Your task to perform on an android device: toggle priority inbox in the gmail app Image 0: 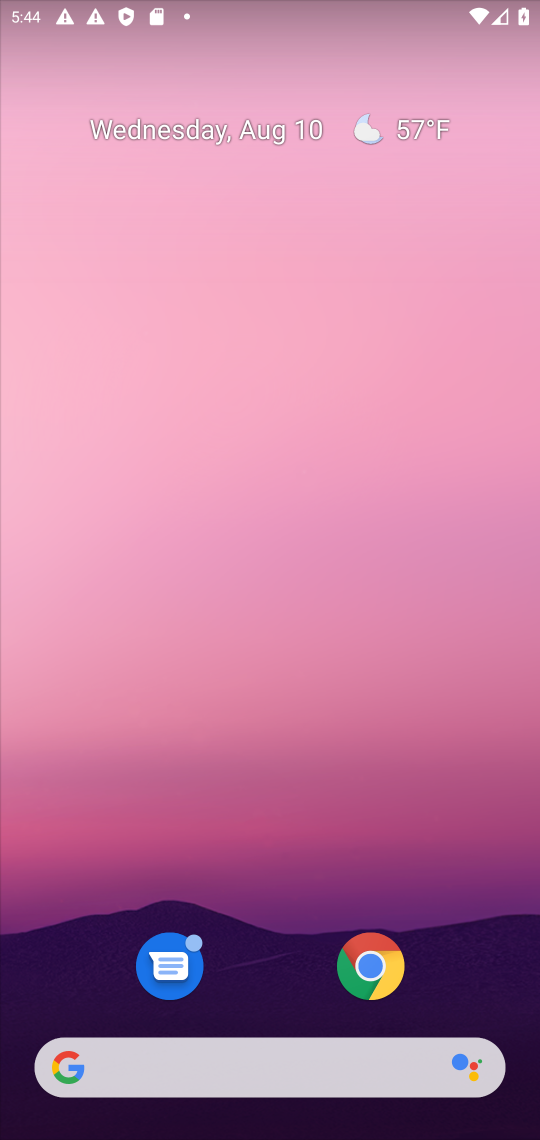
Step 0: click (370, 242)
Your task to perform on an android device: toggle priority inbox in the gmail app Image 1: 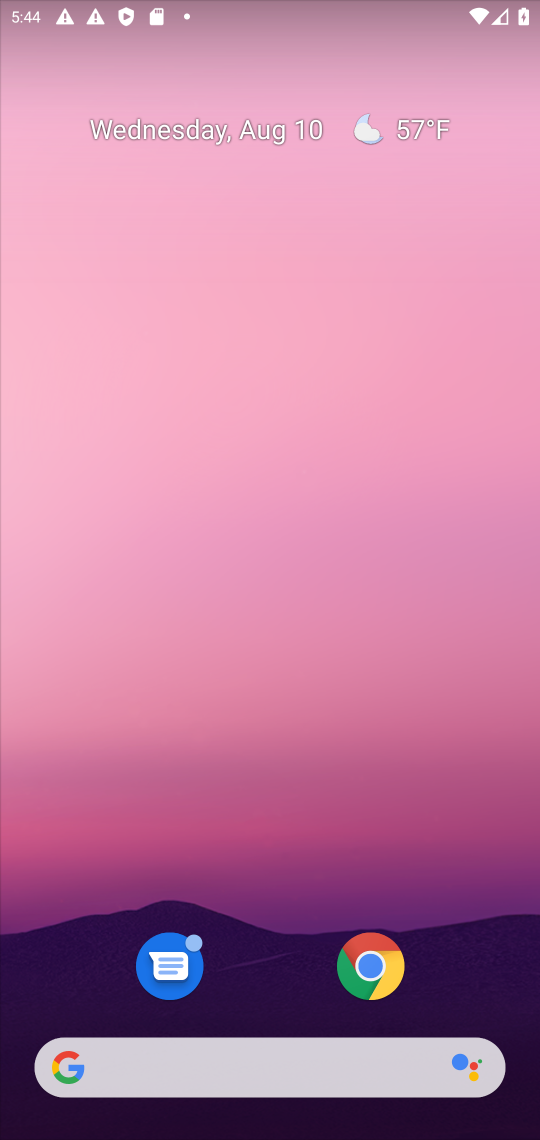
Step 1: drag from (258, 974) to (305, 333)
Your task to perform on an android device: toggle priority inbox in the gmail app Image 2: 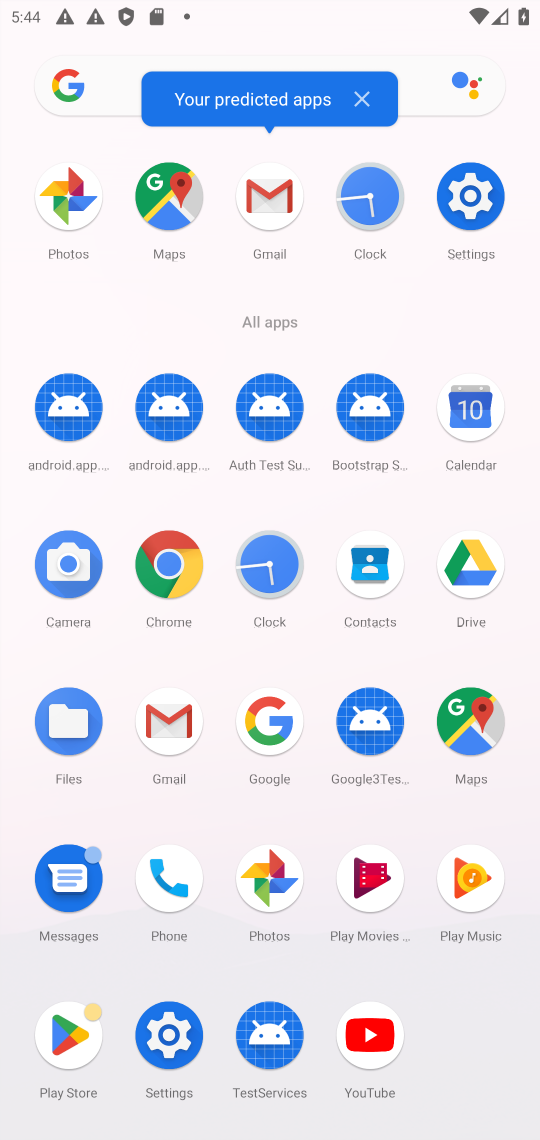
Step 2: click (283, 211)
Your task to perform on an android device: toggle priority inbox in the gmail app Image 3: 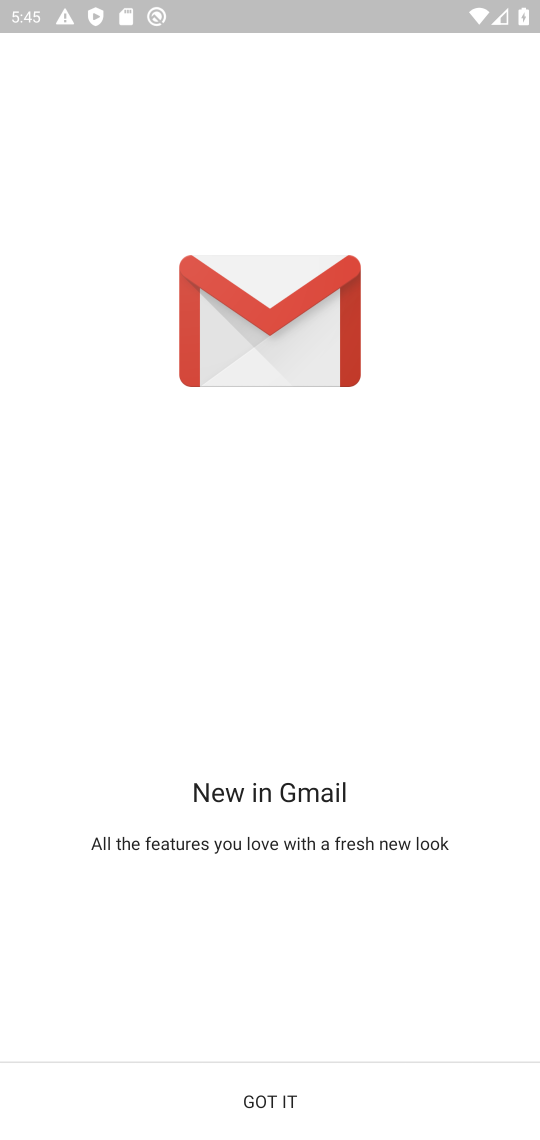
Step 3: click (276, 1094)
Your task to perform on an android device: toggle priority inbox in the gmail app Image 4: 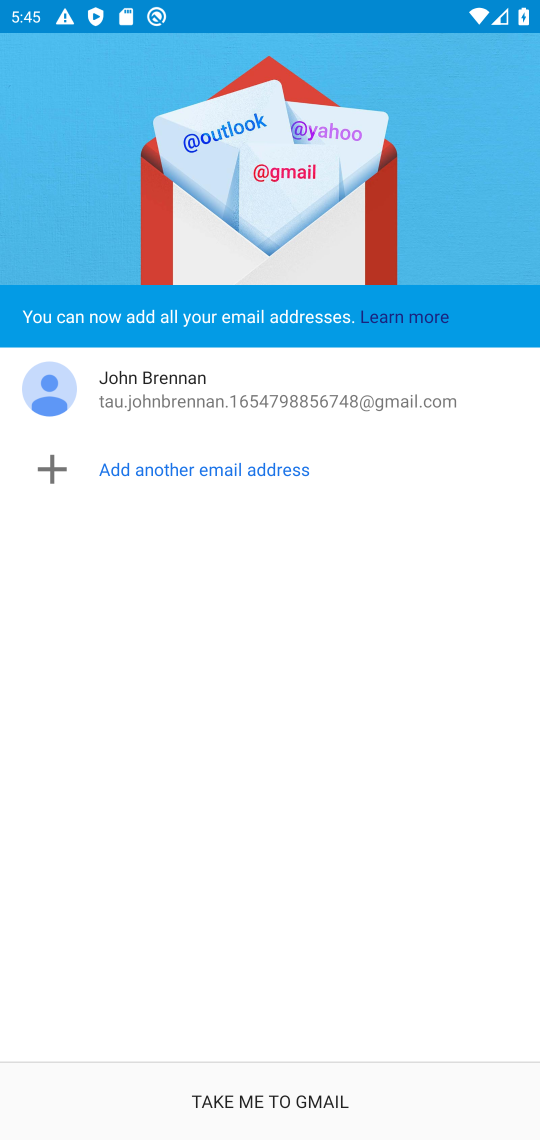
Step 4: click (276, 1094)
Your task to perform on an android device: toggle priority inbox in the gmail app Image 5: 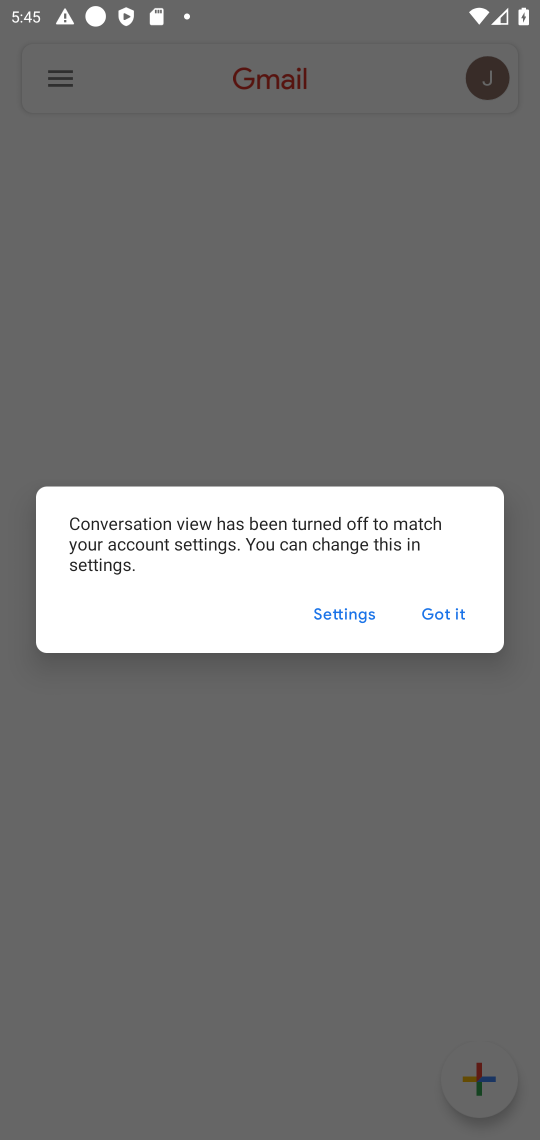
Step 5: click (445, 609)
Your task to perform on an android device: toggle priority inbox in the gmail app Image 6: 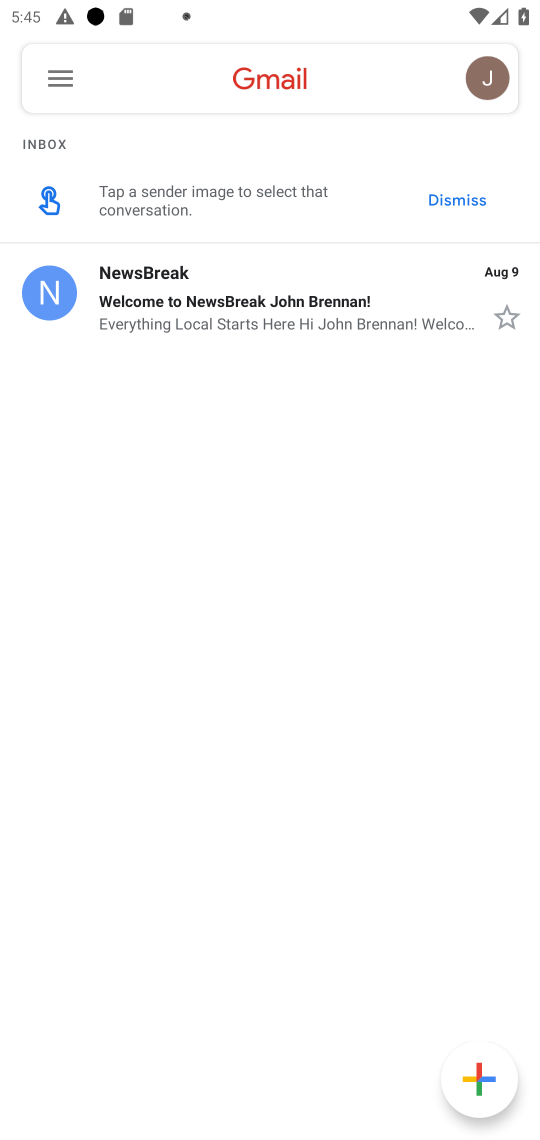
Step 6: click (76, 85)
Your task to perform on an android device: toggle priority inbox in the gmail app Image 7: 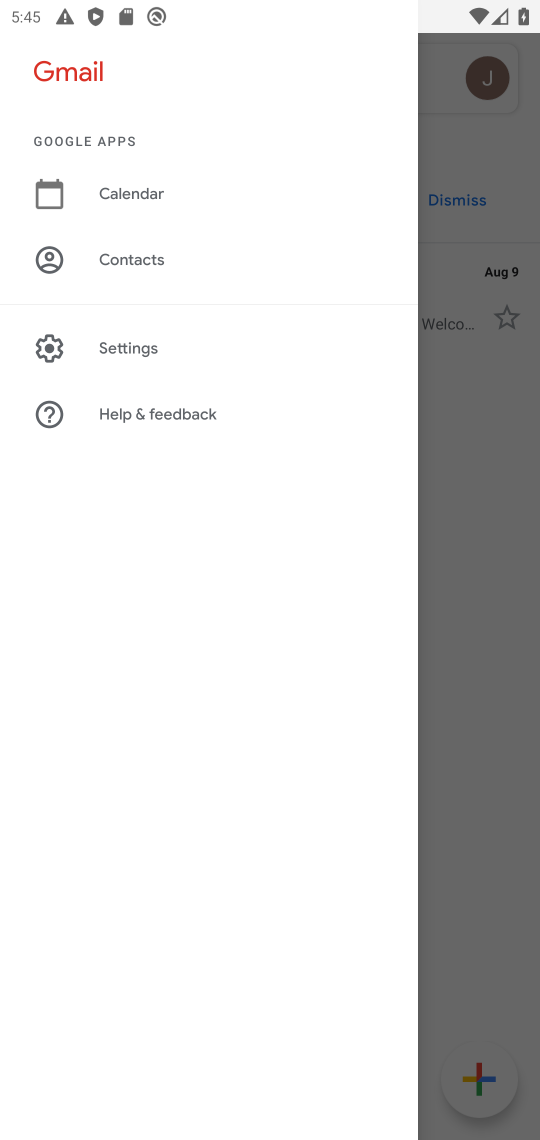
Step 7: click (141, 356)
Your task to perform on an android device: toggle priority inbox in the gmail app Image 8: 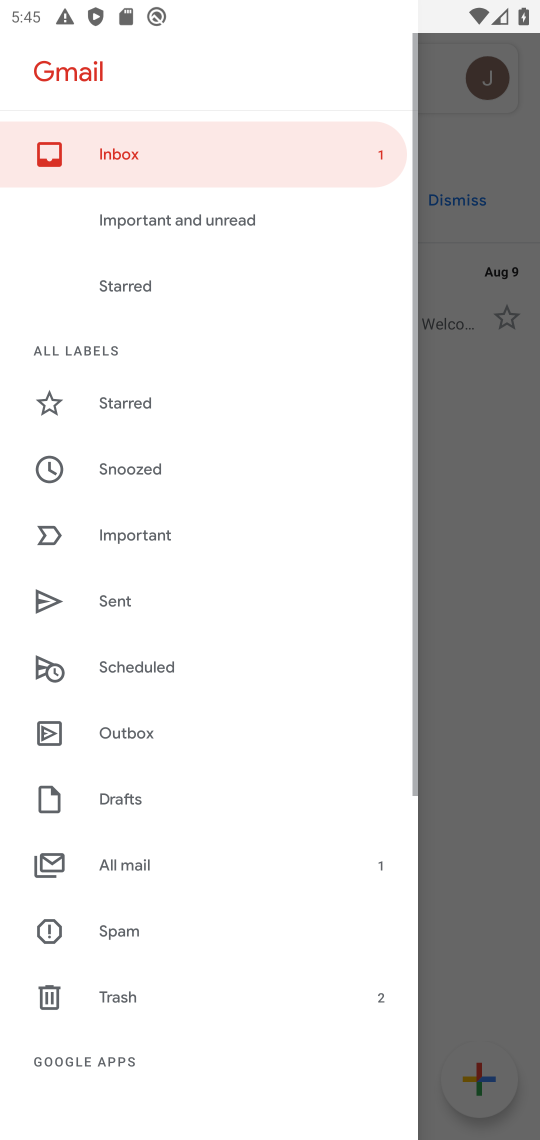
Step 8: drag from (236, 1046) to (157, 212)
Your task to perform on an android device: toggle priority inbox in the gmail app Image 9: 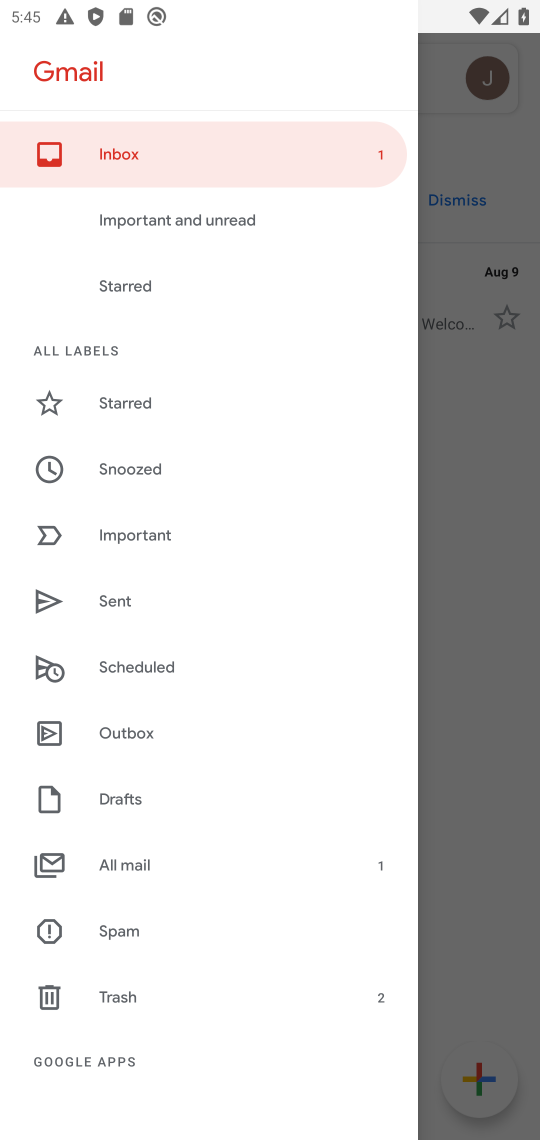
Step 9: drag from (232, 910) to (264, 242)
Your task to perform on an android device: toggle priority inbox in the gmail app Image 10: 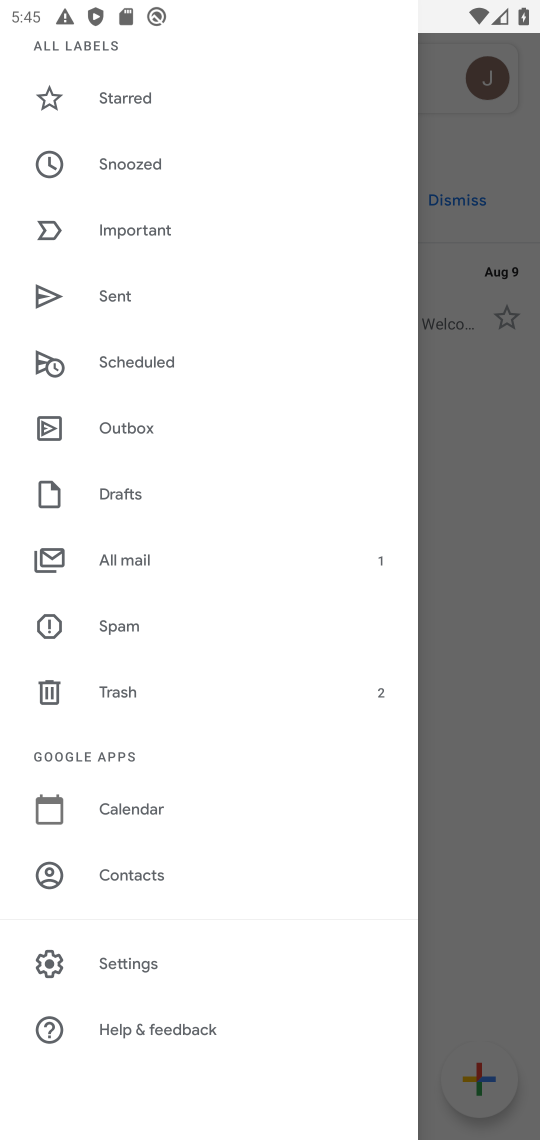
Step 10: click (127, 965)
Your task to perform on an android device: toggle priority inbox in the gmail app Image 11: 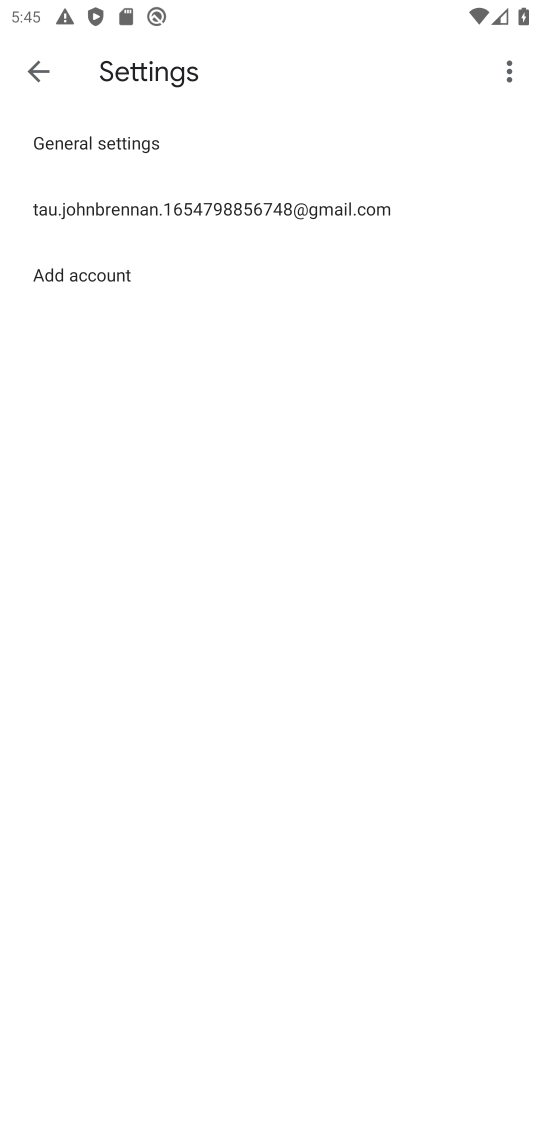
Step 11: click (229, 198)
Your task to perform on an android device: toggle priority inbox in the gmail app Image 12: 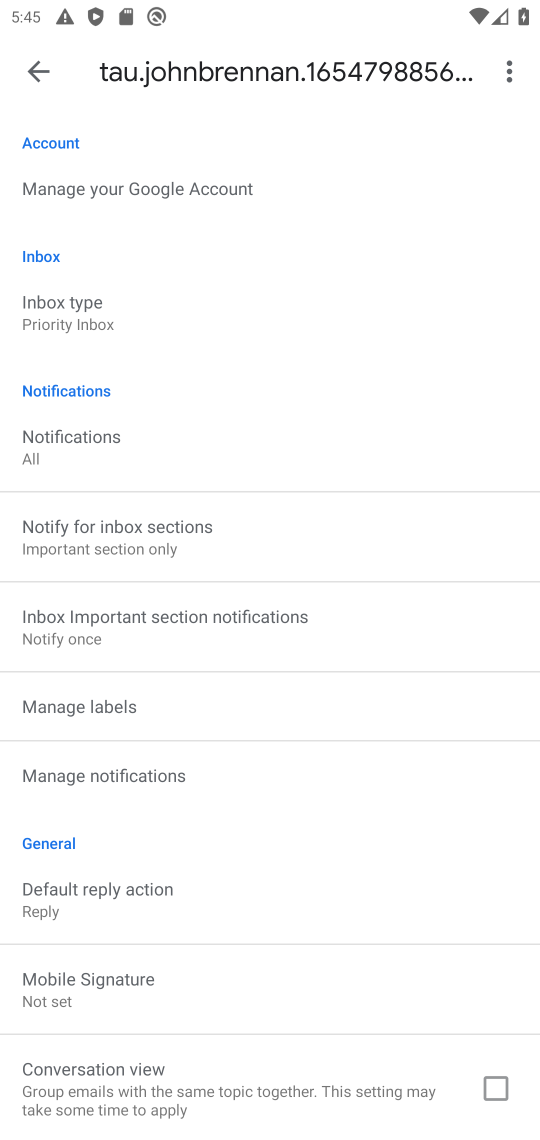
Step 12: click (90, 322)
Your task to perform on an android device: toggle priority inbox in the gmail app Image 13: 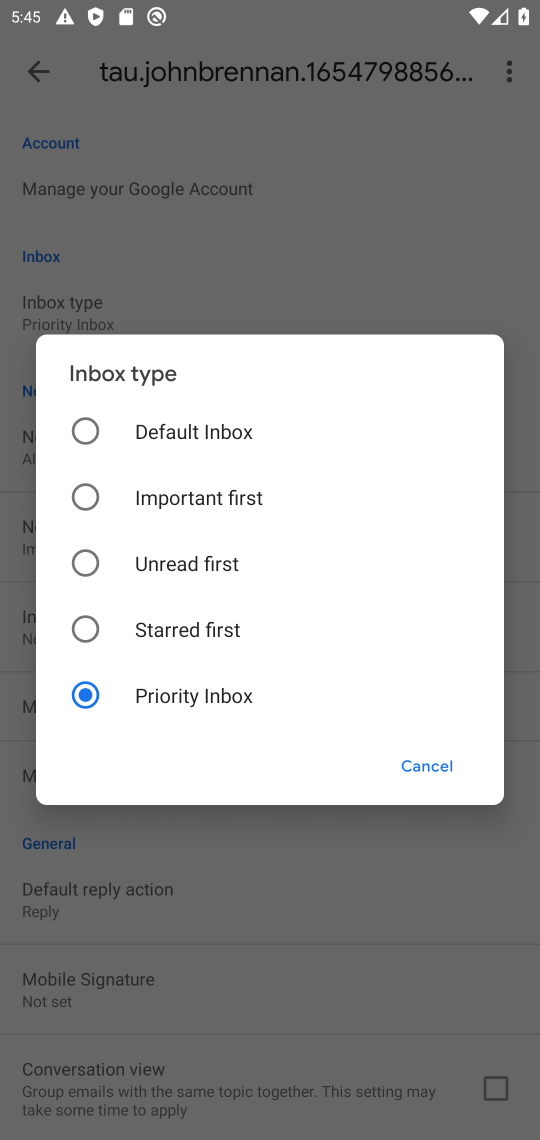
Step 13: click (83, 431)
Your task to perform on an android device: toggle priority inbox in the gmail app Image 14: 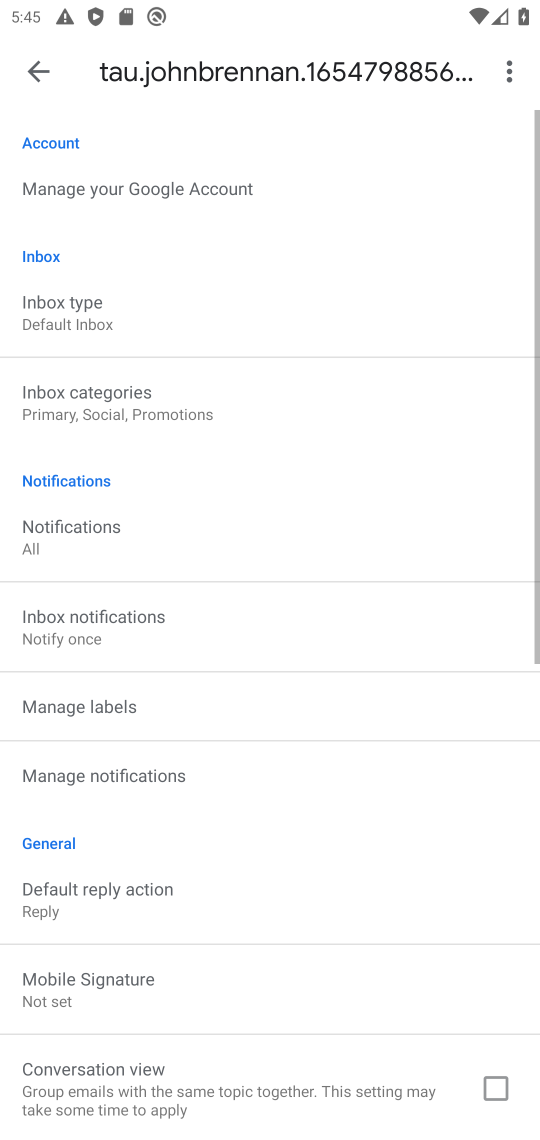
Step 14: task complete